Your task to perform on an android device: Go to Maps Image 0: 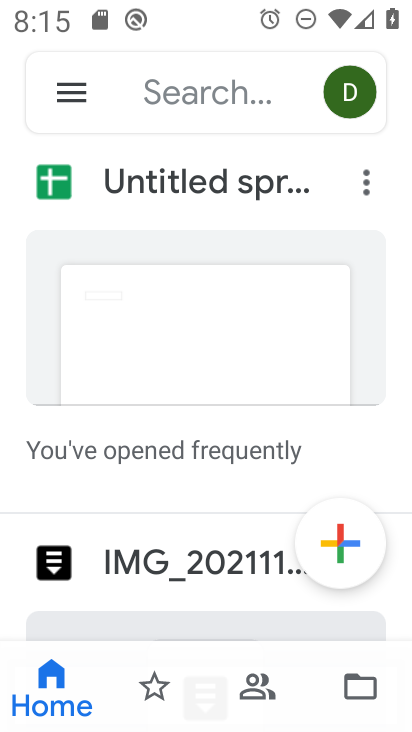
Step 0: press home button
Your task to perform on an android device: Go to Maps Image 1: 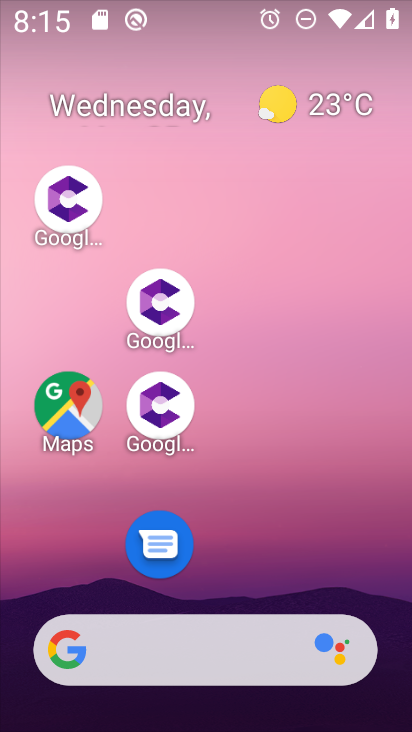
Step 1: click (97, 430)
Your task to perform on an android device: Go to Maps Image 2: 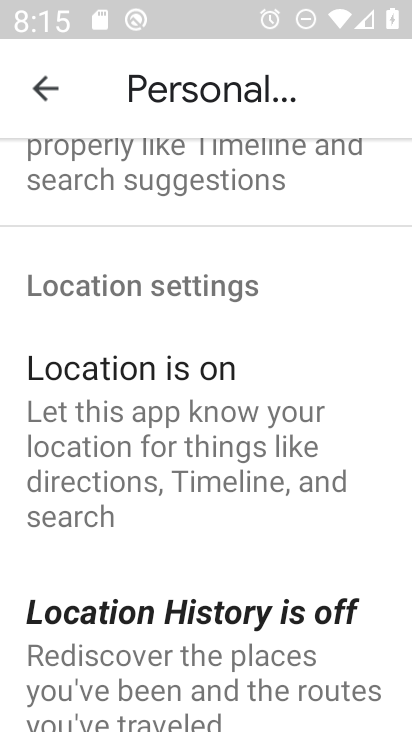
Step 2: click (44, 96)
Your task to perform on an android device: Go to Maps Image 3: 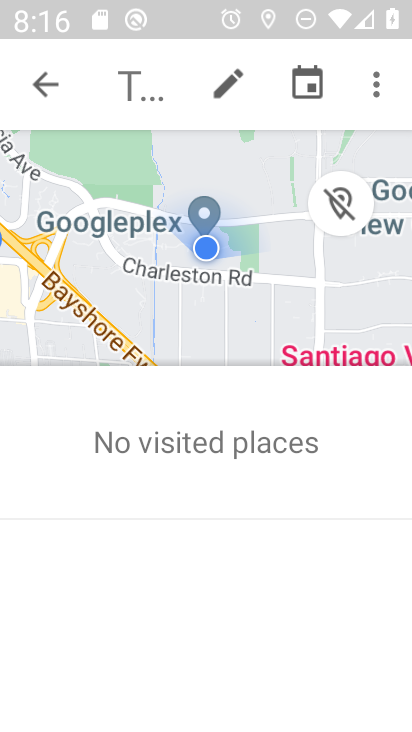
Step 3: task complete